Your task to perform on an android device: Open privacy settings Image 0: 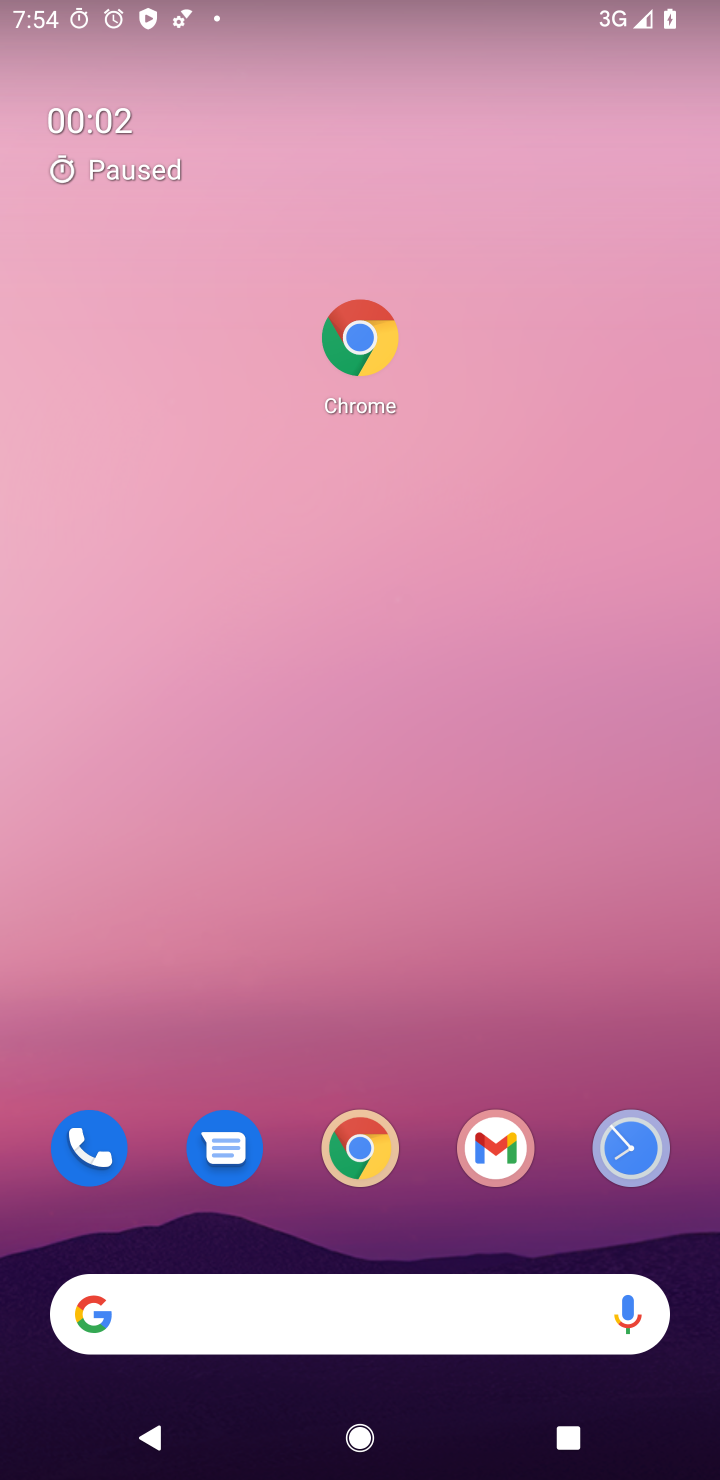
Step 0: drag from (409, 1030) to (554, 48)
Your task to perform on an android device: Open privacy settings Image 1: 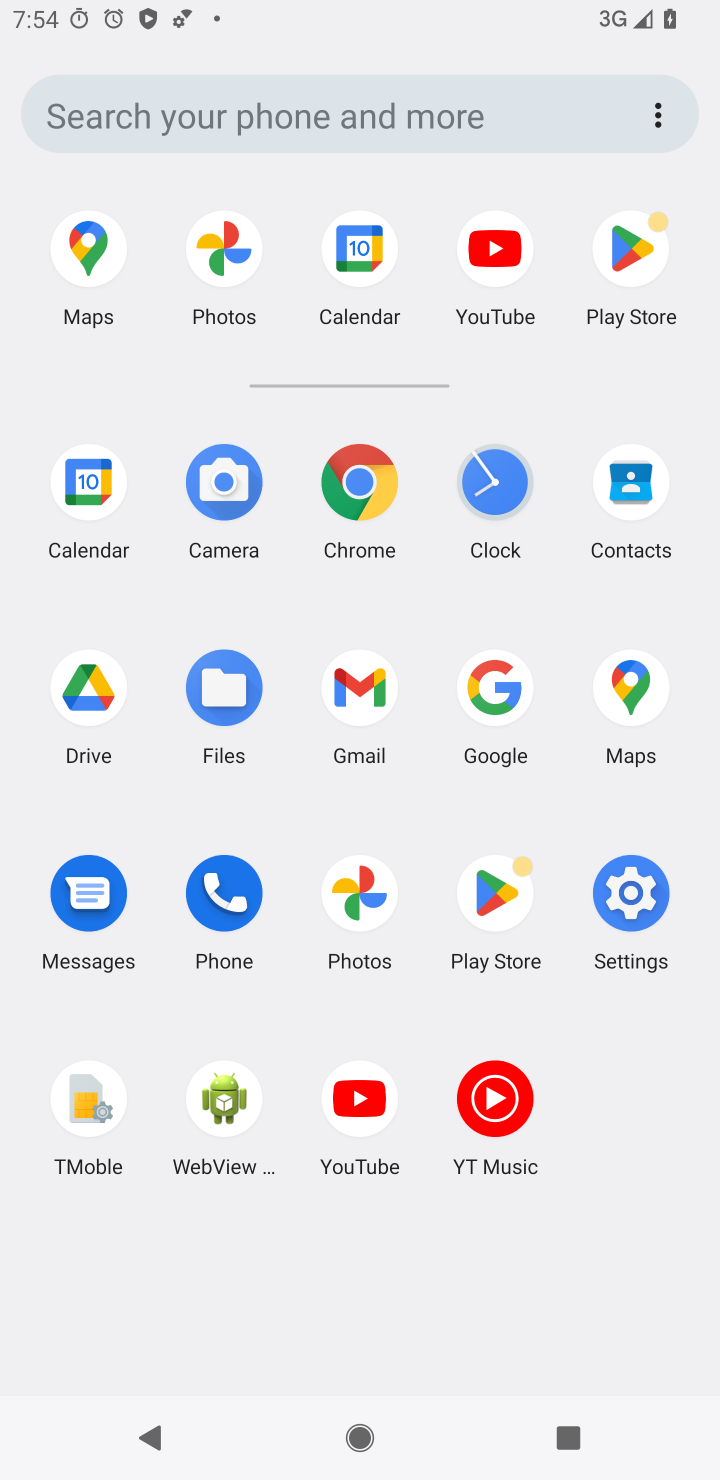
Step 1: click (634, 875)
Your task to perform on an android device: Open privacy settings Image 2: 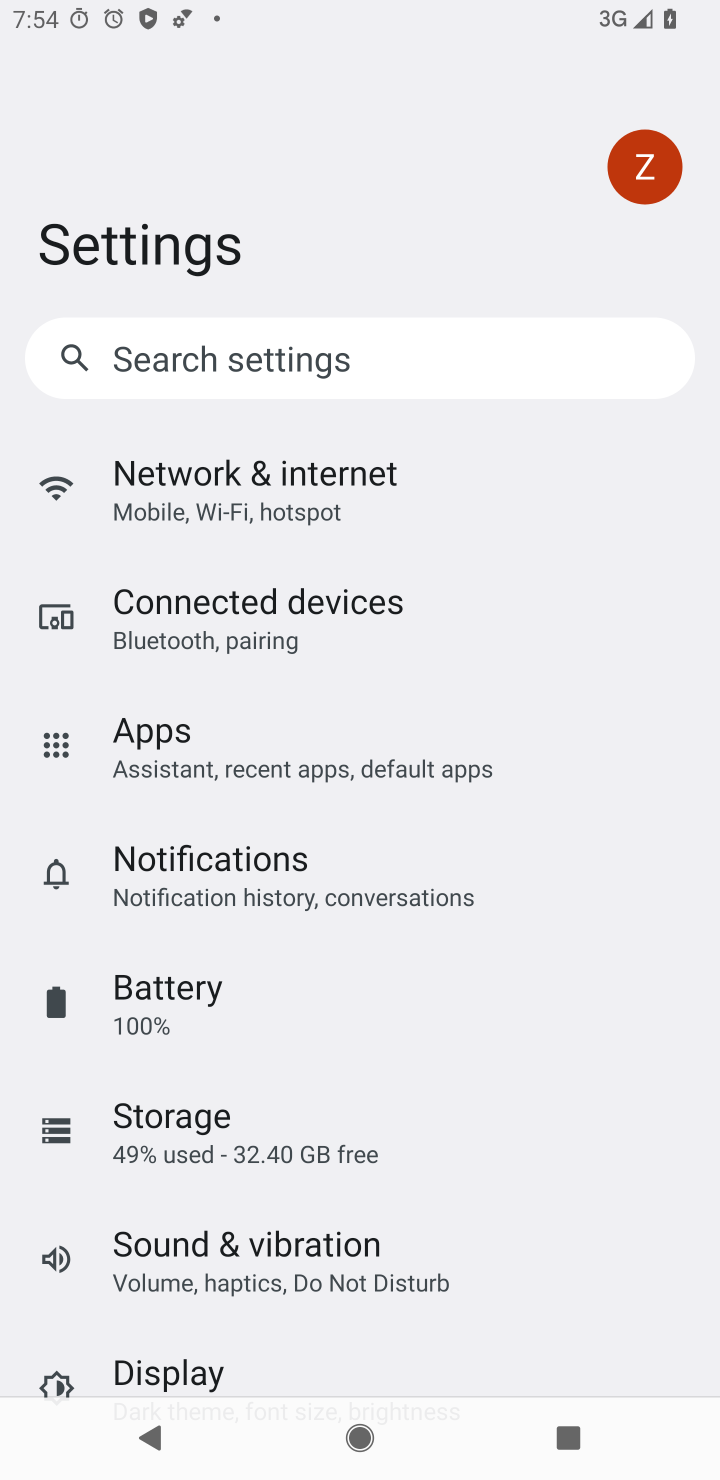
Step 2: drag from (368, 1093) to (404, 329)
Your task to perform on an android device: Open privacy settings Image 3: 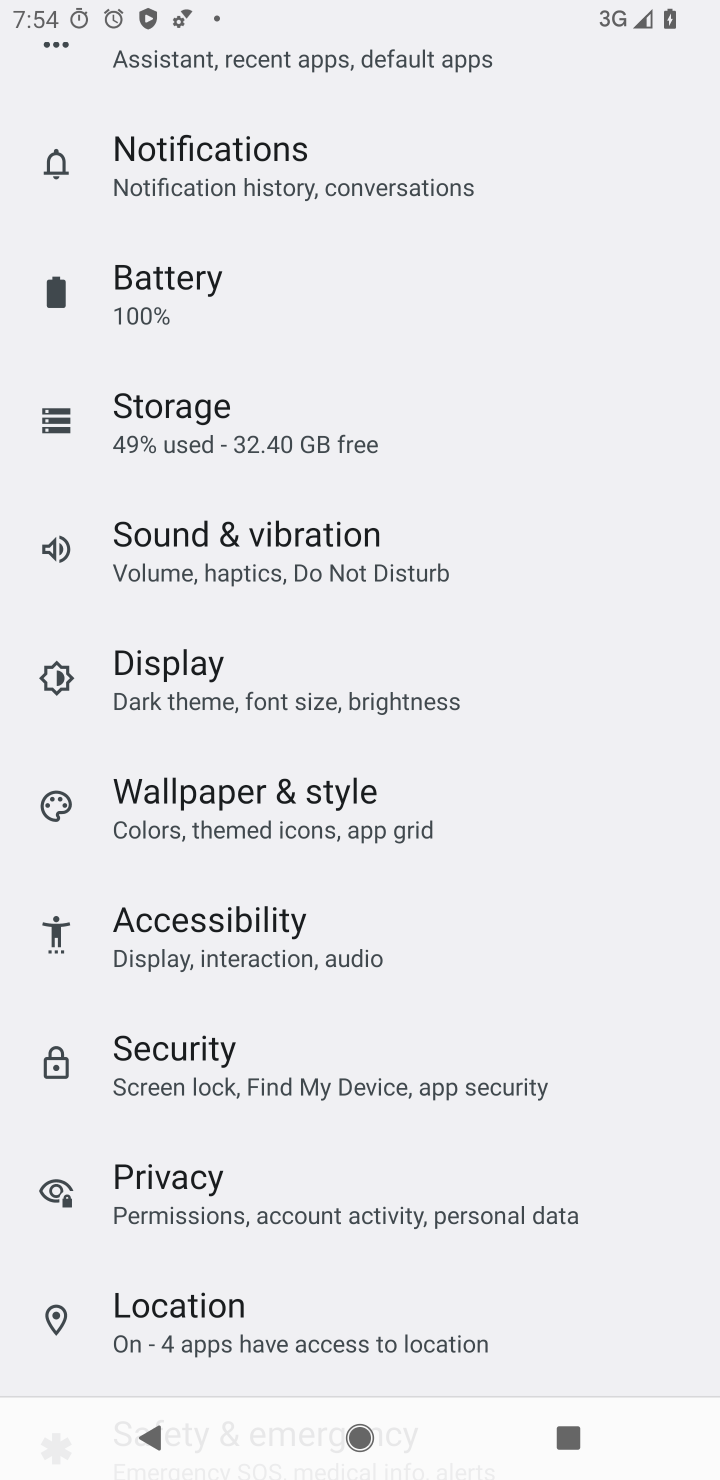
Step 3: click (185, 1170)
Your task to perform on an android device: Open privacy settings Image 4: 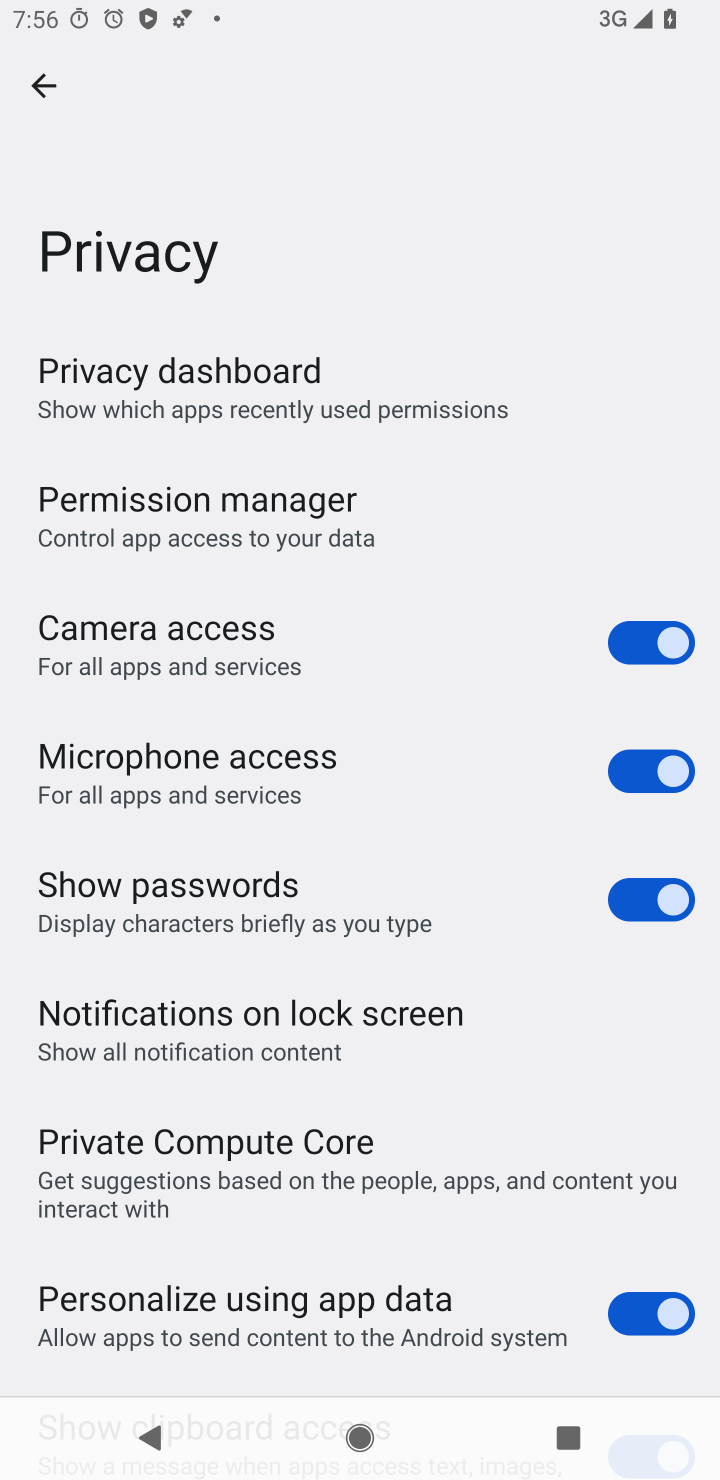
Step 4: task complete